Your task to perform on an android device: open the mobile data screen to see how much data has been used Image 0: 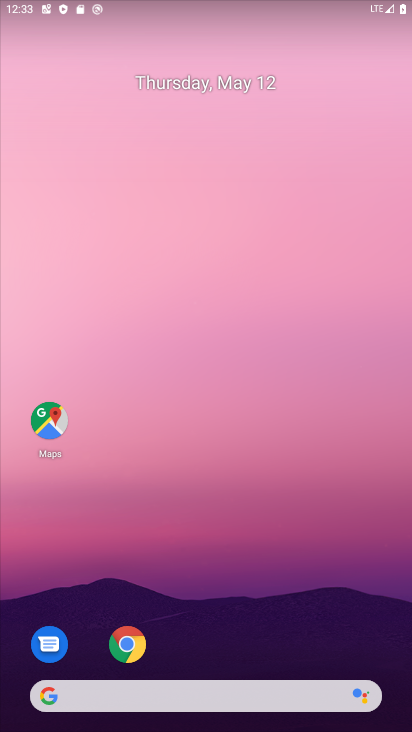
Step 0: drag from (245, 398) to (186, 158)
Your task to perform on an android device: open the mobile data screen to see how much data has been used Image 1: 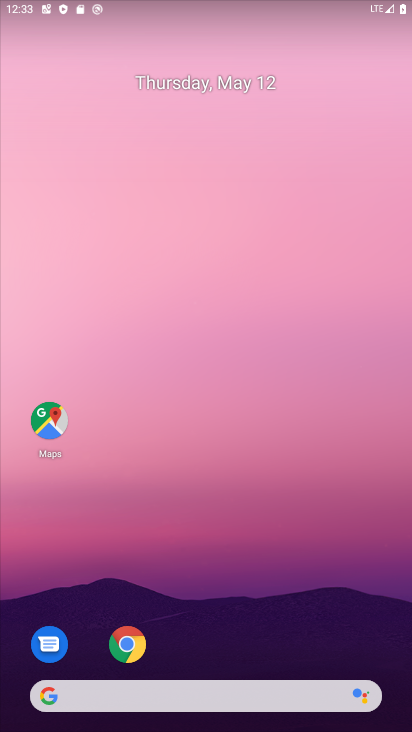
Step 1: drag from (222, 539) to (198, 66)
Your task to perform on an android device: open the mobile data screen to see how much data has been used Image 2: 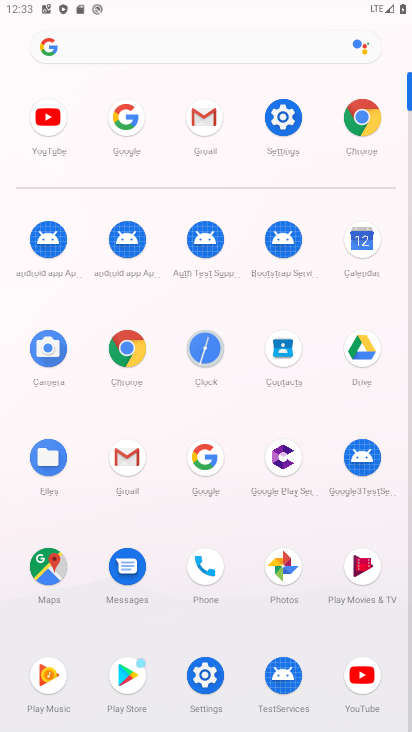
Step 2: click (287, 111)
Your task to perform on an android device: open the mobile data screen to see how much data has been used Image 3: 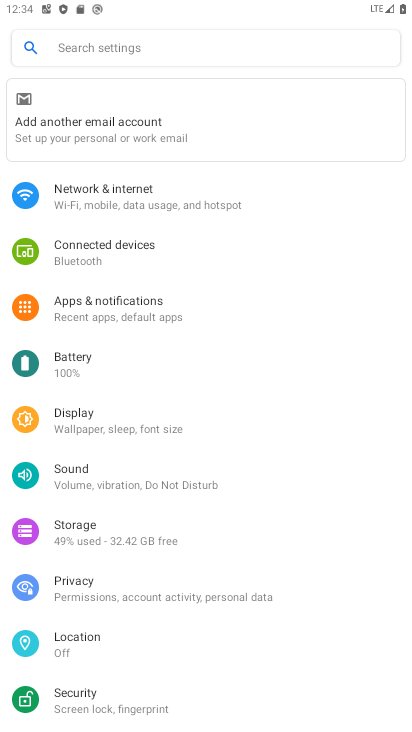
Step 3: click (164, 201)
Your task to perform on an android device: open the mobile data screen to see how much data has been used Image 4: 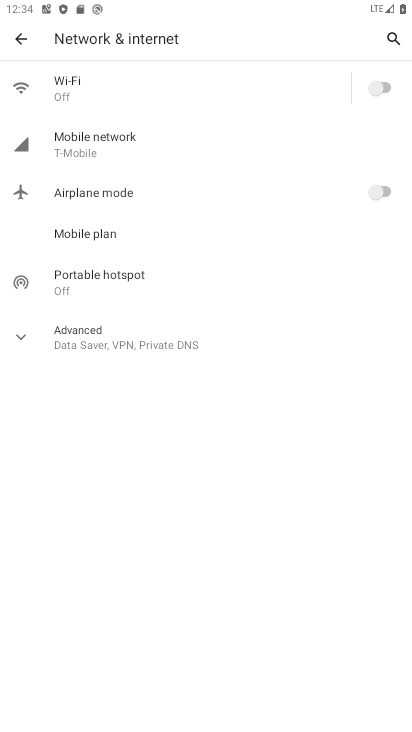
Step 4: click (149, 145)
Your task to perform on an android device: open the mobile data screen to see how much data has been used Image 5: 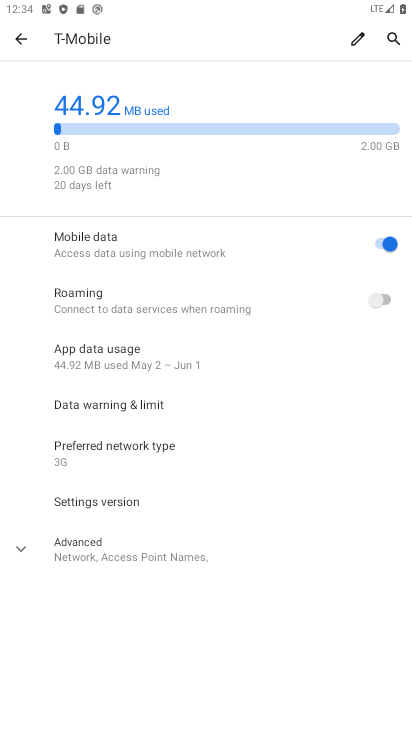
Step 5: task complete